Your task to perform on an android device: find snoozed emails in the gmail app Image 0: 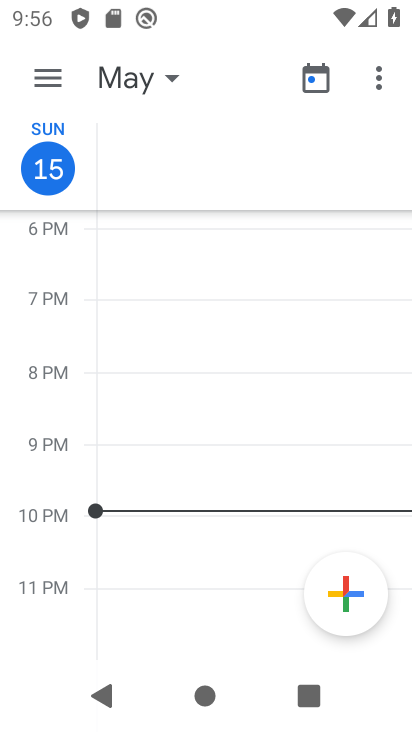
Step 0: press home button
Your task to perform on an android device: find snoozed emails in the gmail app Image 1: 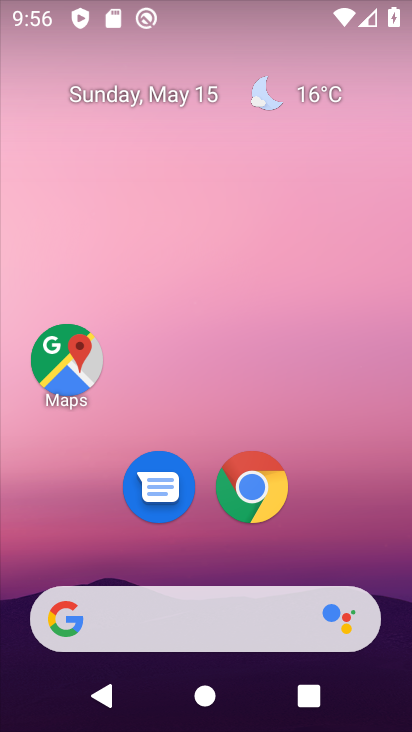
Step 1: drag from (402, 647) to (335, 160)
Your task to perform on an android device: find snoozed emails in the gmail app Image 2: 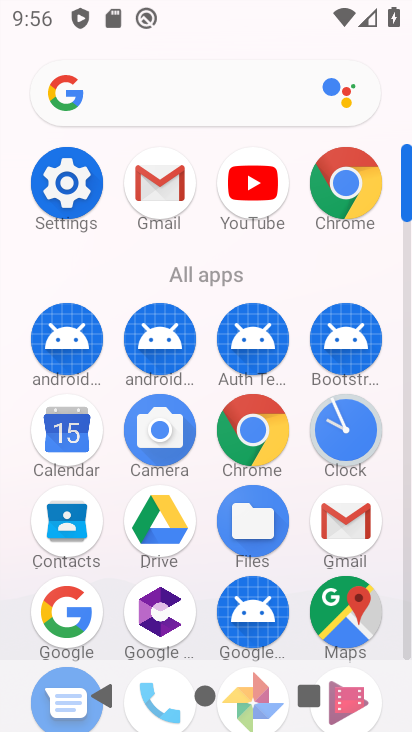
Step 2: click (408, 644)
Your task to perform on an android device: find snoozed emails in the gmail app Image 3: 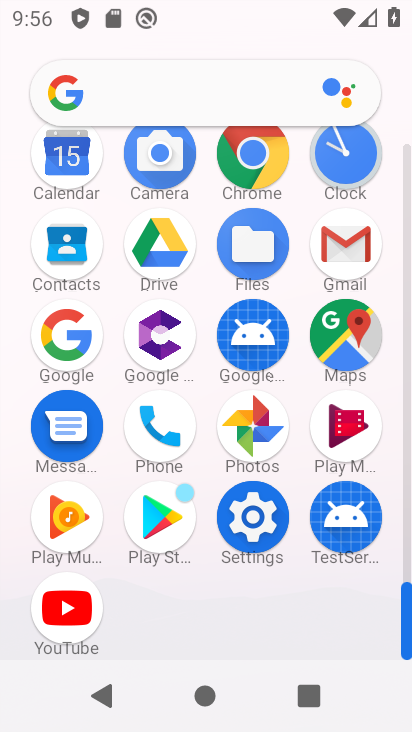
Step 3: click (343, 244)
Your task to perform on an android device: find snoozed emails in the gmail app Image 4: 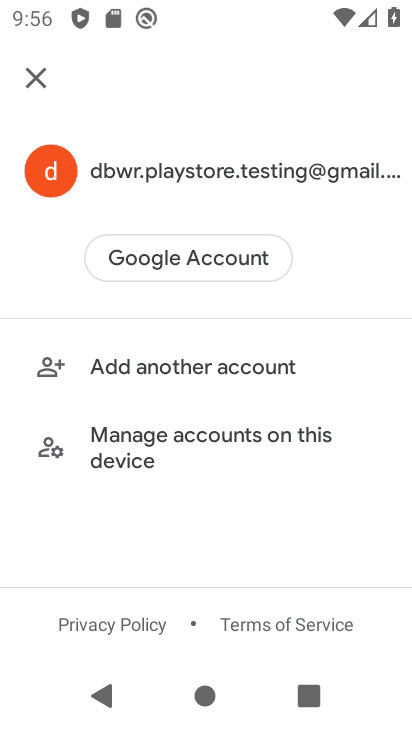
Step 4: click (35, 74)
Your task to perform on an android device: find snoozed emails in the gmail app Image 5: 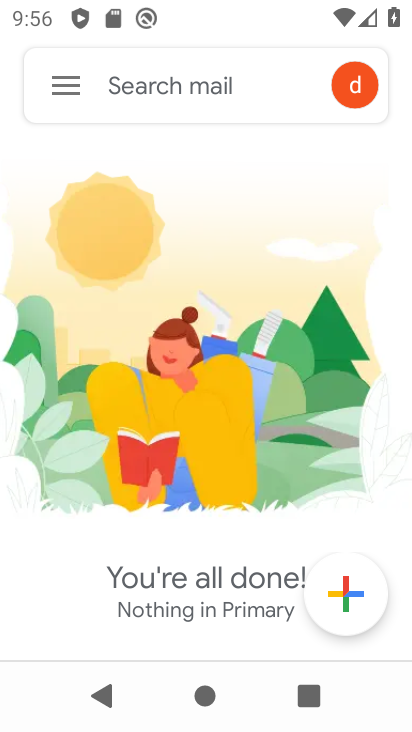
Step 5: click (72, 88)
Your task to perform on an android device: find snoozed emails in the gmail app Image 6: 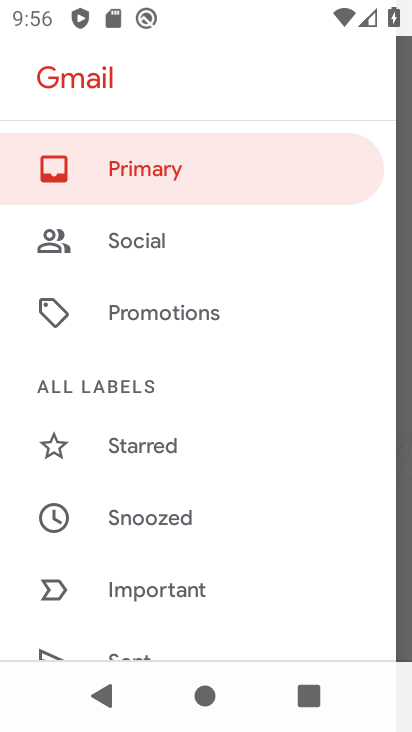
Step 6: click (159, 525)
Your task to perform on an android device: find snoozed emails in the gmail app Image 7: 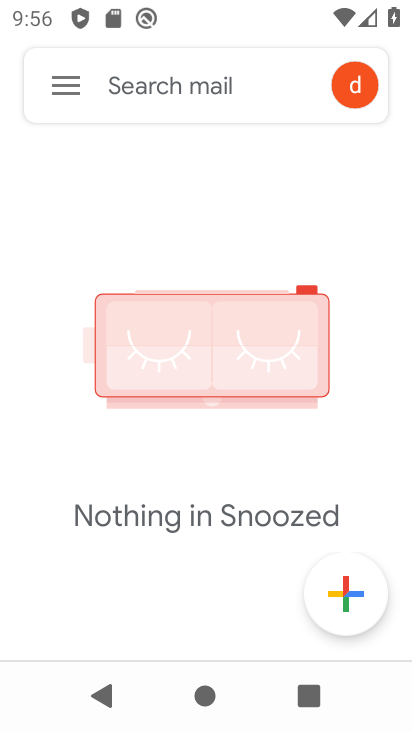
Step 7: task complete